Your task to perform on an android device: Search for vegetarian restaurants on Maps Image 0: 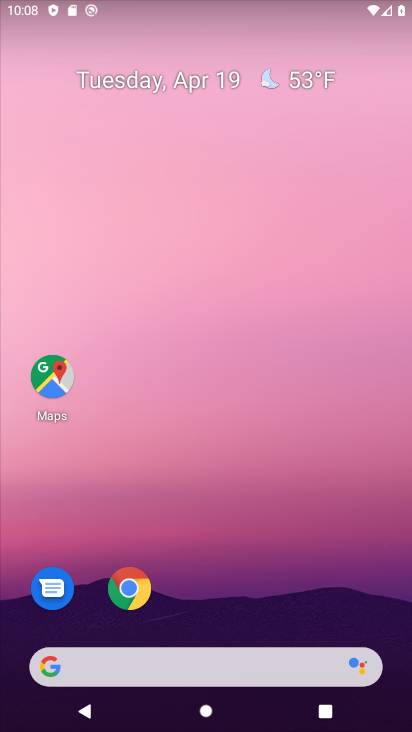
Step 0: click (57, 375)
Your task to perform on an android device: Search for vegetarian restaurants on Maps Image 1: 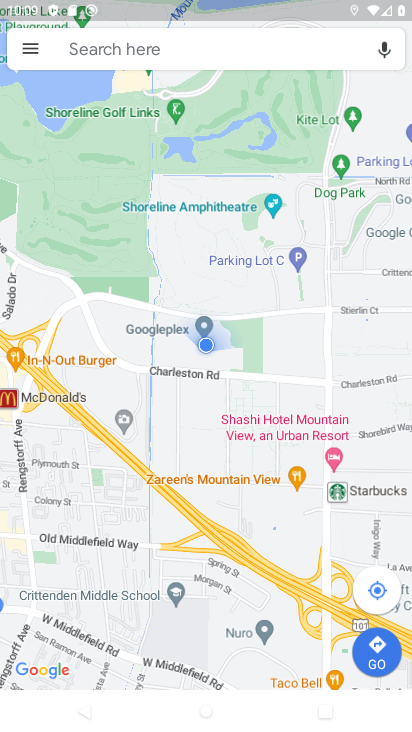
Step 1: click (205, 53)
Your task to perform on an android device: Search for vegetarian restaurants on Maps Image 2: 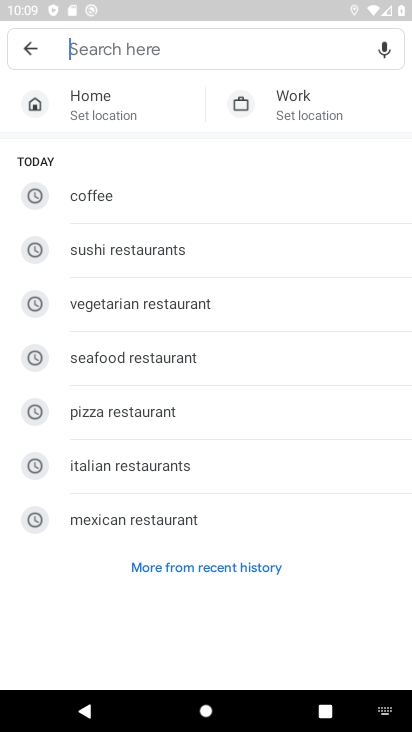
Step 2: click (99, 304)
Your task to perform on an android device: Search for vegetarian restaurants on Maps Image 3: 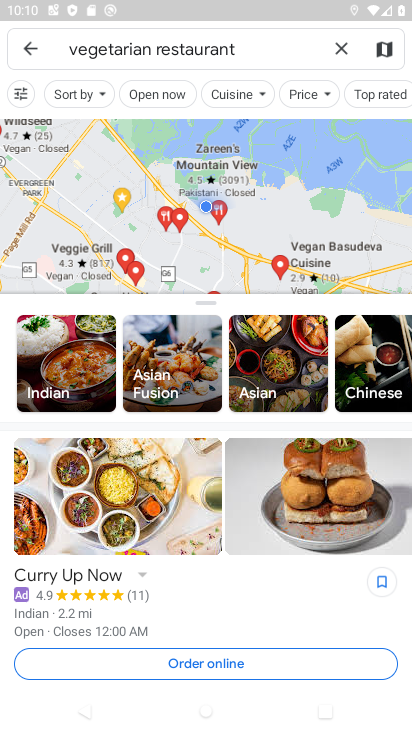
Step 3: task complete